Your task to perform on an android device: Open the phone app and click the voicemail tab. Image 0: 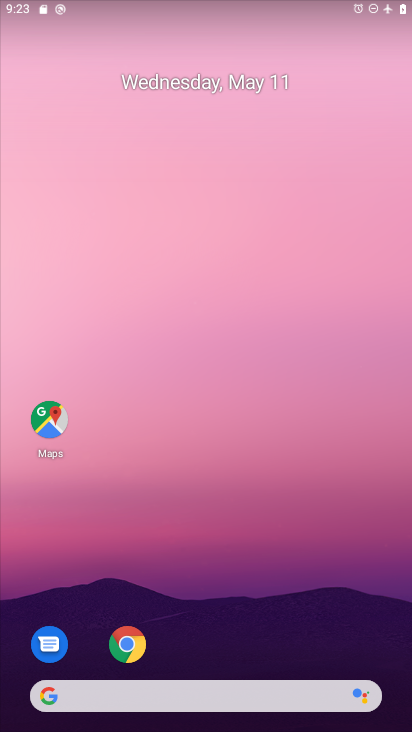
Step 0: drag from (233, 571) to (190, 128)
Your task to perform on an android device: Open the phone app and click the voicemail tab. Image 1: 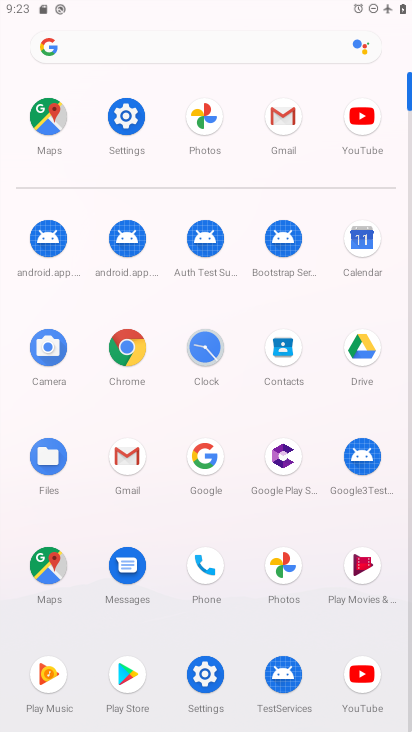
Step 1: click (200, 561)
Your task to perform on an android device: Open the phone app and click the voicemail tab. Image 2: 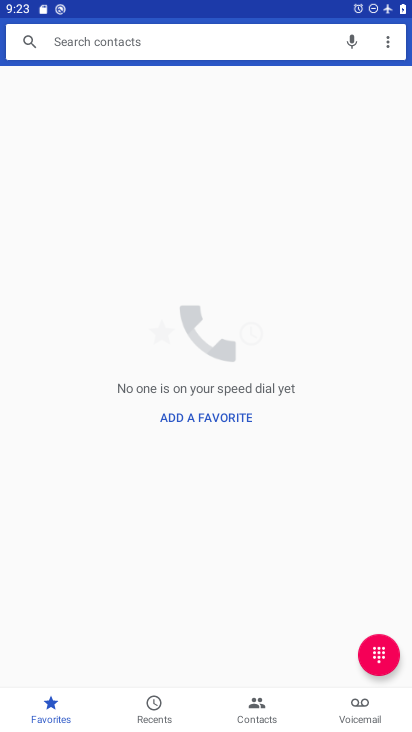
Step 2: click (358, 717)
Your task to perform on an android device: Open the phone app and click the voicemail tab. Image 3: 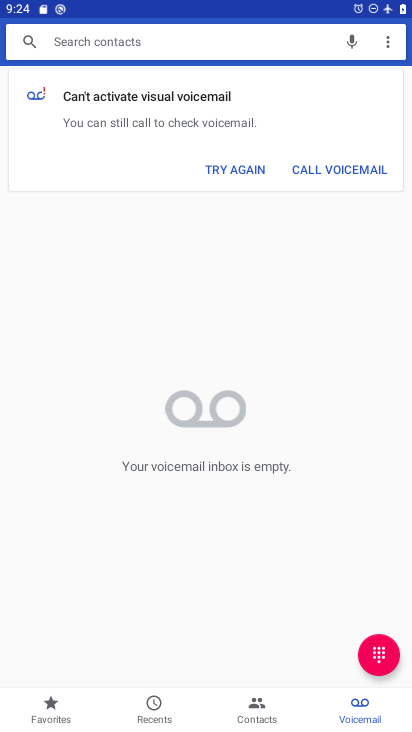
Step 3: task complete